Your task to perform on an android device: Go to settings Image 0: 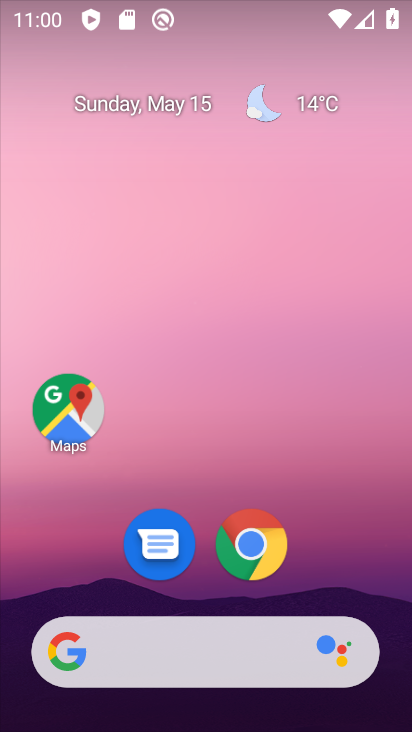
Step 0: drag from (208, 596) to (305, 62)
Your task to perform on an android device: Go to settings Image 1: 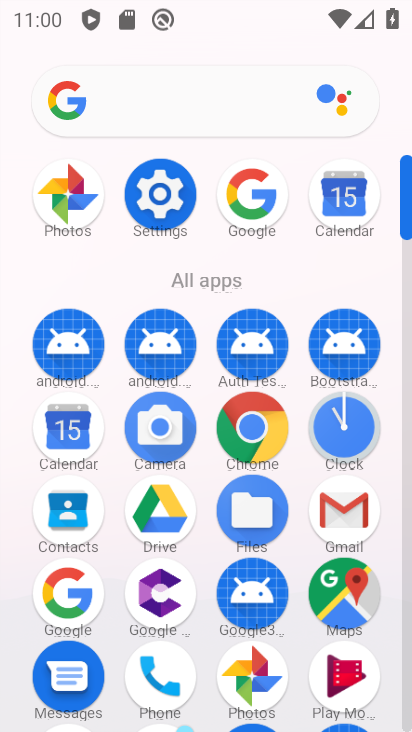
Step 1: drag from (208, 636) to (288, 398)
Your task to perform on an android device: Go to settings Image 2: 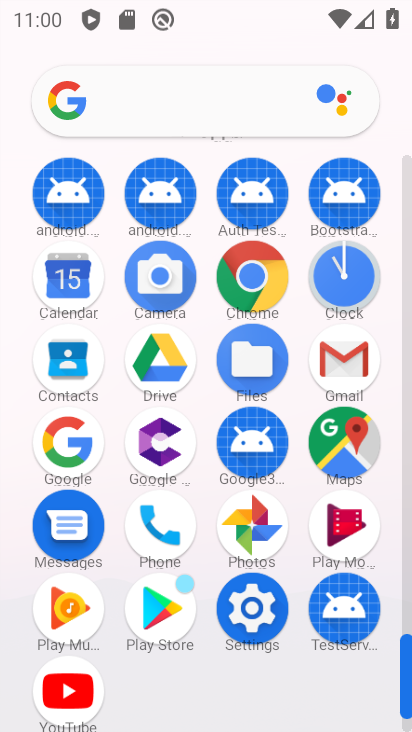
Step 2: click (254, 615)
Your task to perform on an android device: Go to settings Image 3: 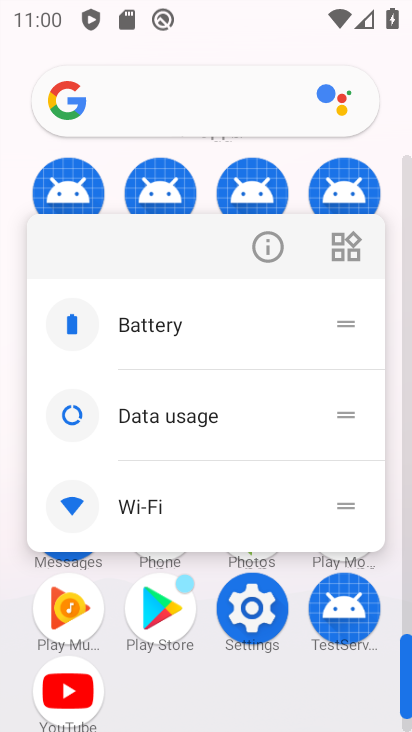
Step 3: click (251, 601)
Your task to perform on an android device: Go to settings Image 4: 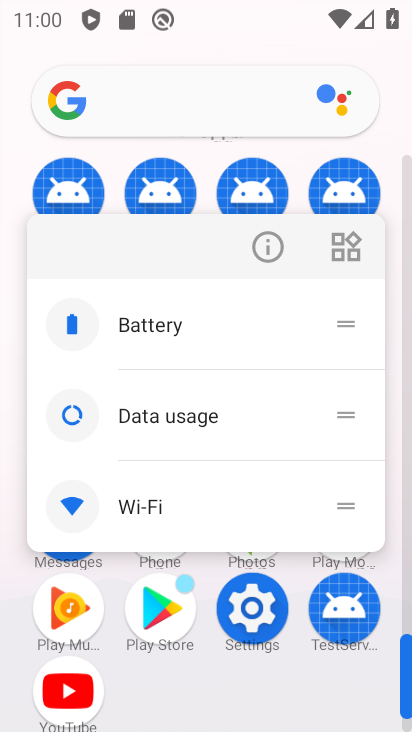
Step 4: click (256, 622)
Your task to perform on an android device: Go to settings Image 5: 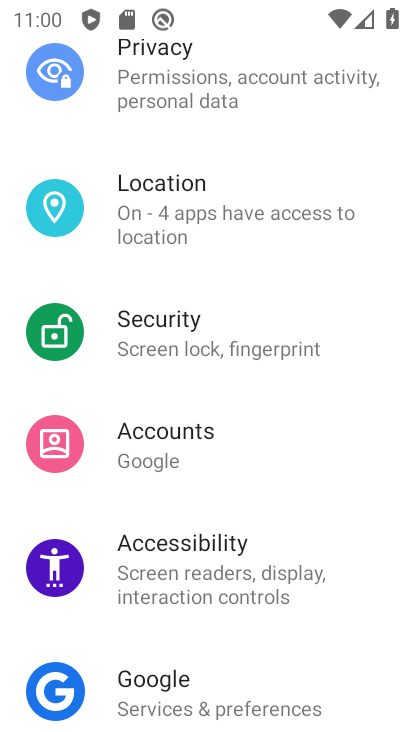
Step 5: task complete